Your task to perform on an android device: change the clock display to digital Image 0: 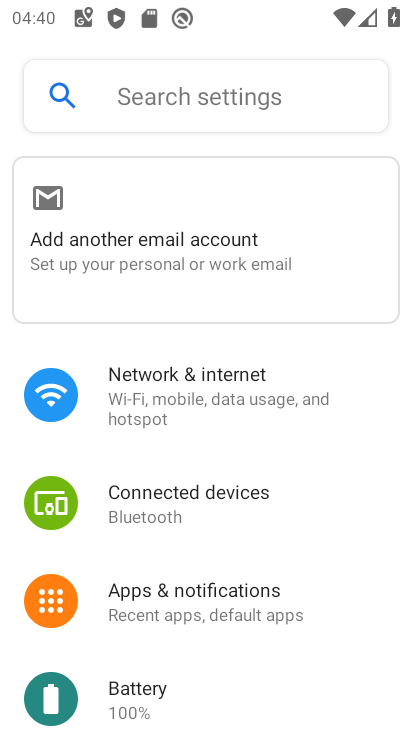
Step 0: press home button
Your task to perform on an android device: change the clock display to digital Image 1: 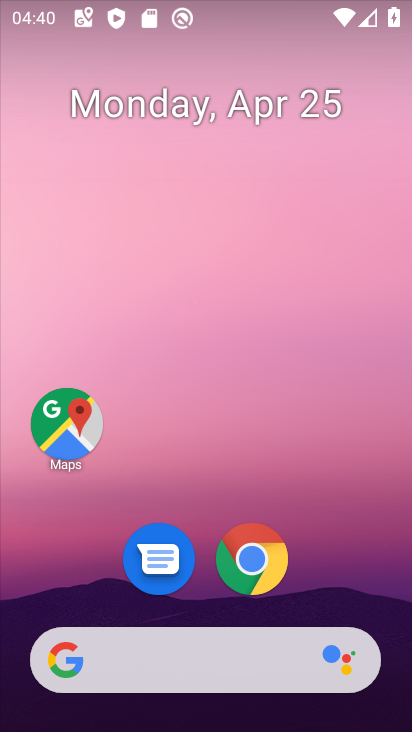
Step 1: drag from (208, 471) to (215, 37)
Your task to perform on an android device: change the clock display to digital Image 2: 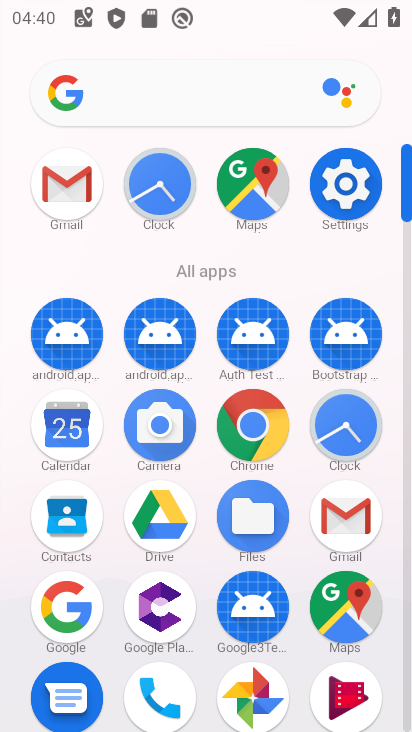
Step 2: click (129, 164)
Your task to perform on an android device: change the clock display to digital Image 3: 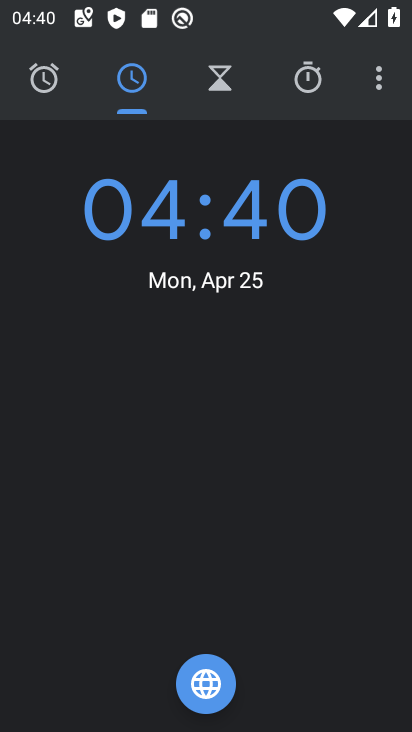
Step 3: click (372, 78)
Your task to perform on an android device: change the clock display to digital Image 4: 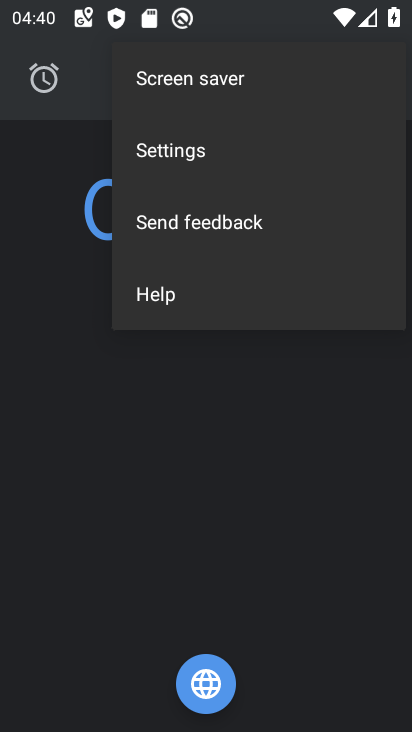
Step 4: click (244, 150)
Your task to perform on an android device: change the clock display to digital Image 5: 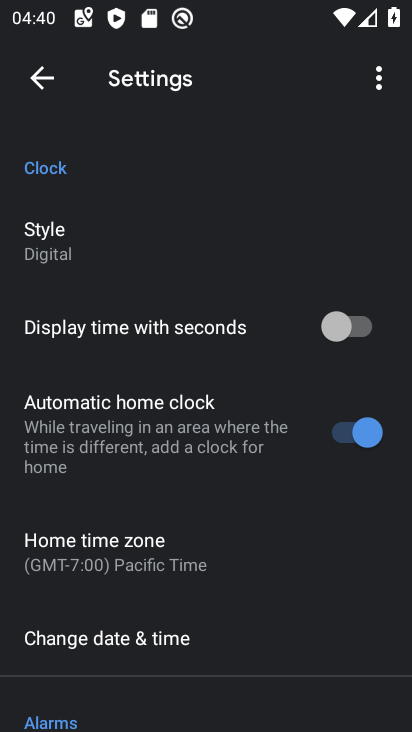
Step 5: click (166, 232)
Your task to perform on an android device: change the clock display to digital Image 6: 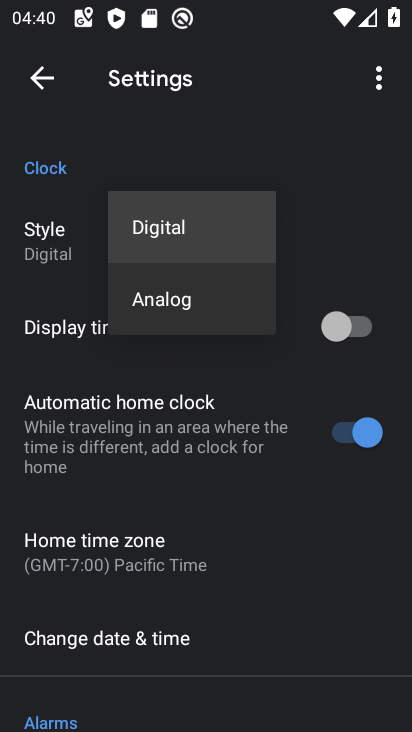
Step 6: task complete